Your task to perform on an android device: How do I get to the nearest Nordstrom? Image 0: 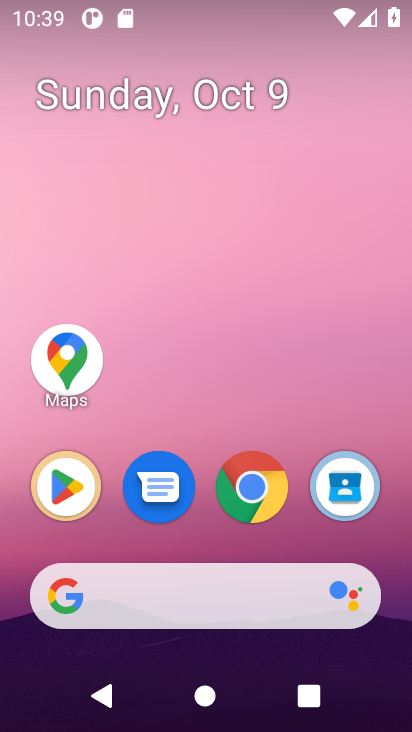
Step 0: click (248, 513)
Your task to perform on an android device: How do I get to the nearest Nordstrom? Image 1: 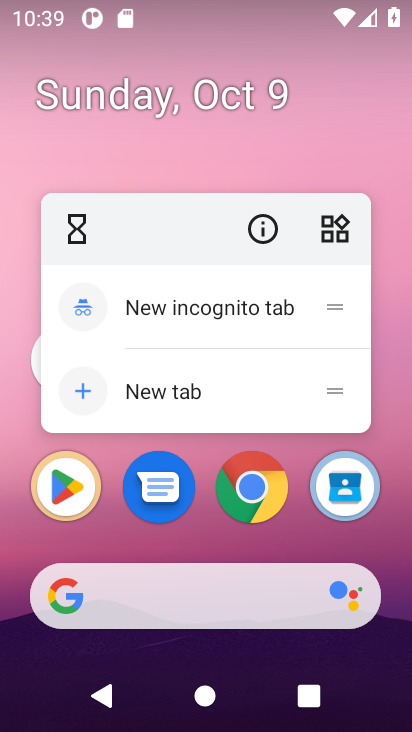
Step 1: click (255, 495)
Your task to perform on an android device: How do I get to the nearest Nordstrom? Image 2: 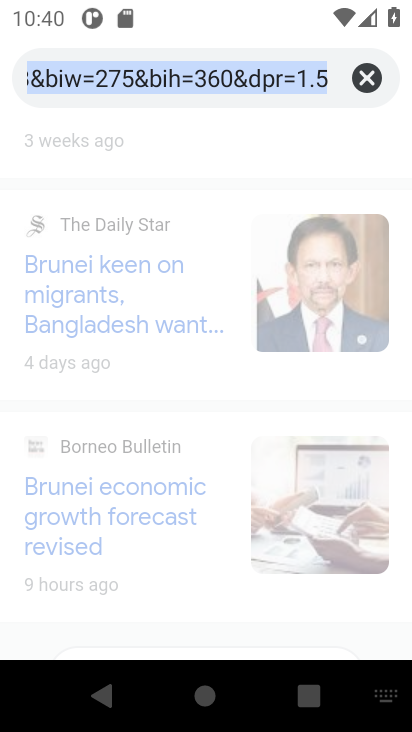
Step 2: type "nearest Nordstorm"
Your task to perform on an android device: How do I get to the nearest Nordstrom? Image 3: 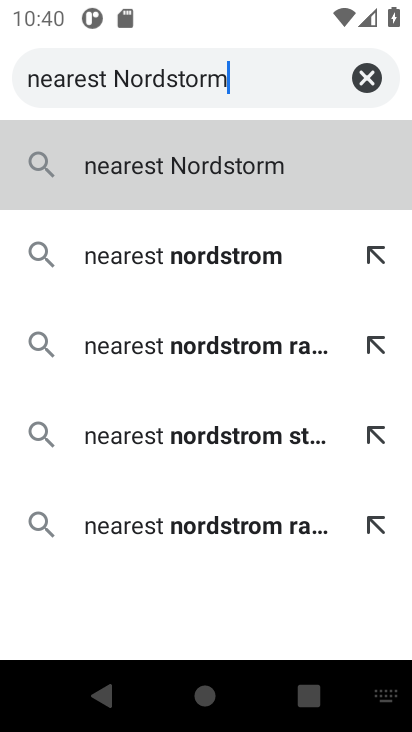
Step 3: press enter
Your task to perform on an android device: How do I get to the nearest Nordstrom? Image 4: 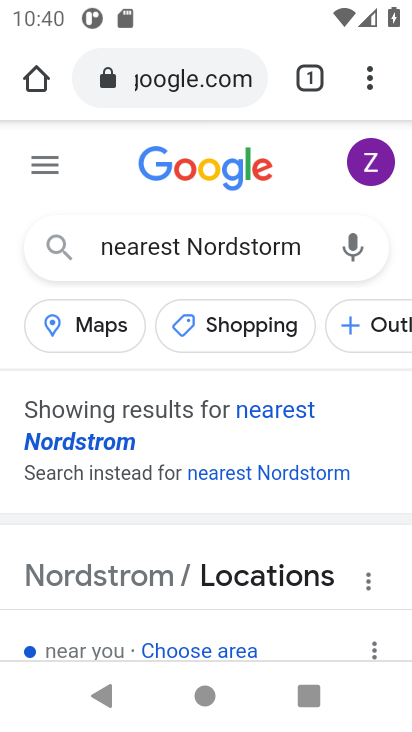
Step 4: drag from (116, 475) to (97, 267)
Your task to perform on an android device: How do I get to the nearest Nordstrom? Image 5: 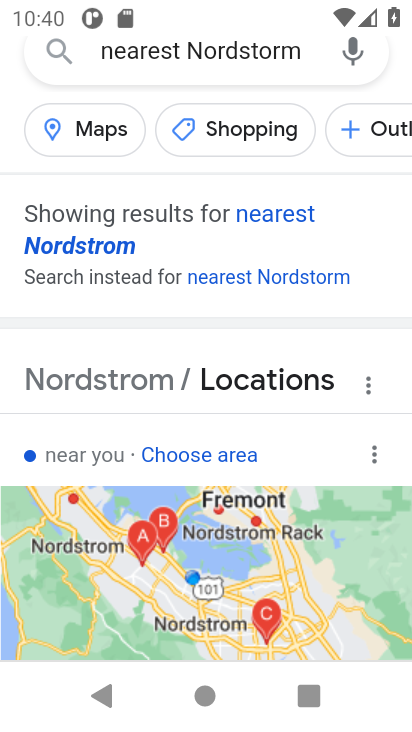
Step 5: drag from (290, 506) to (249, 187)
Your task to perform on an android device: How do I get to the nearest Nordstrom? Image 6: 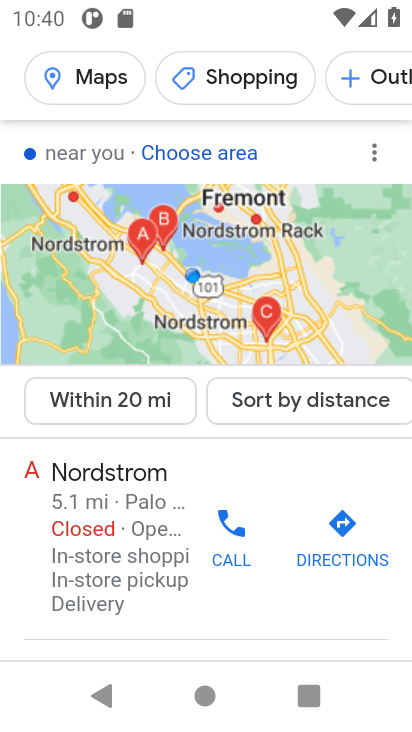
Step 6: drag from (177, 585) to (157, 227)
Your task to perform on an android device: How do I get to the nearest Nordstrom? Image 7: 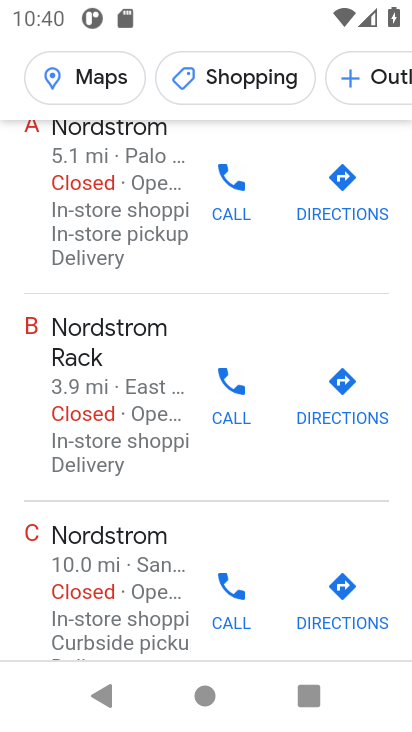
Step 7: drag from (225, 592) to (191, 268)
Your task to perform on an android device: How do I get to the nearest Nordstrom? Image 8: 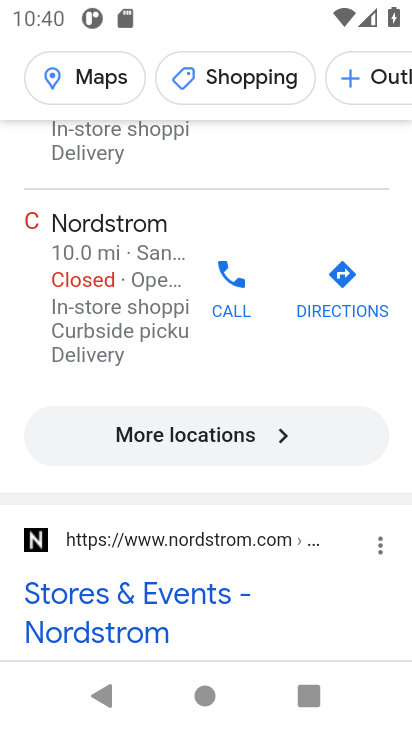
Step 8: drag from (180, 570) to (151, 226)
Your task to perform on an android device: How do I get to the nearest Nordstrom? Image 9: 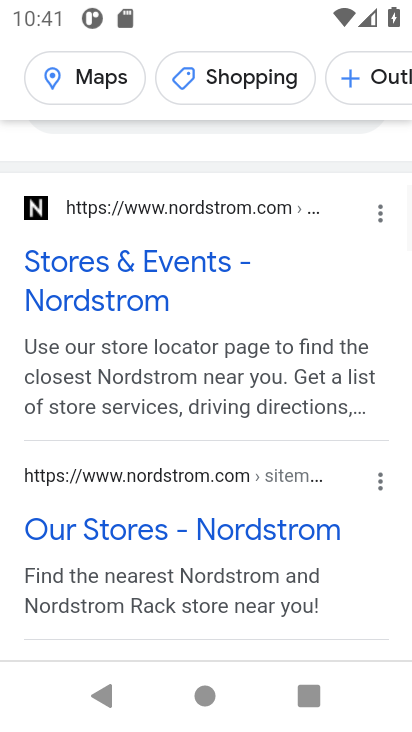
Step 9: drag from (291, 566) to (235, 243)
Your task to perform on an android device: How do I get to the nearest Nordstrom? Image 10: 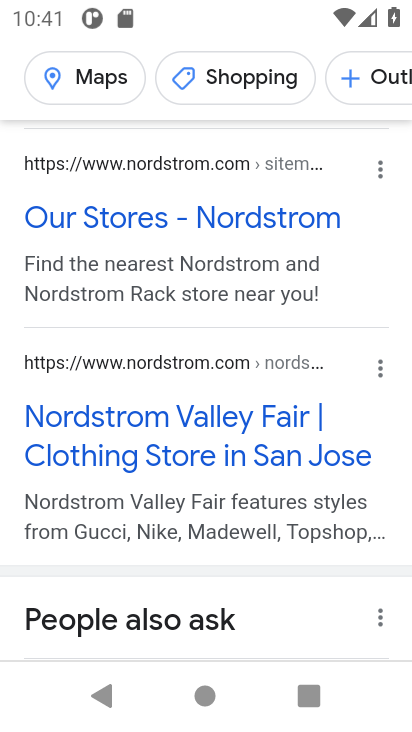
Step 10: drag from (239, 550) to (189, 199)
Your task to perform on an android device: How do I get to the nearest Nordstrom? Image 11: 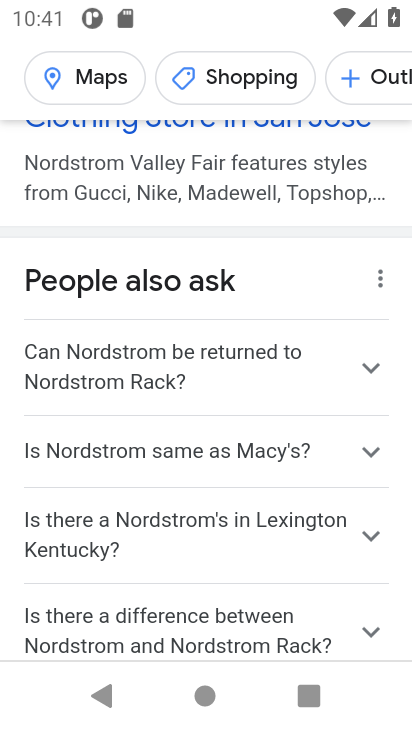
Step 11: drag from (214, 518) to (179, 292)
Your task to perform on an android device: How do I get to the nearest Nordstrom? Image 12: 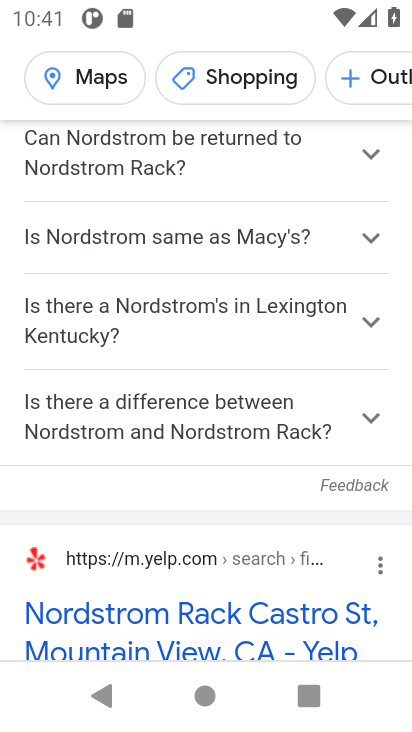
Step 12: click (150, 246)
Your task to perform on an android device: How do I get to the nearest Nordstrom? Image 13: 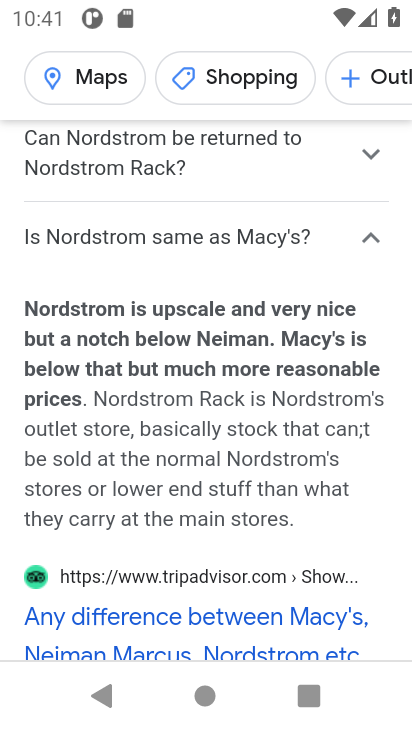
Step 13: task complete